Your task to perform on an android device: toggle pop-ups in chrome Image 0: 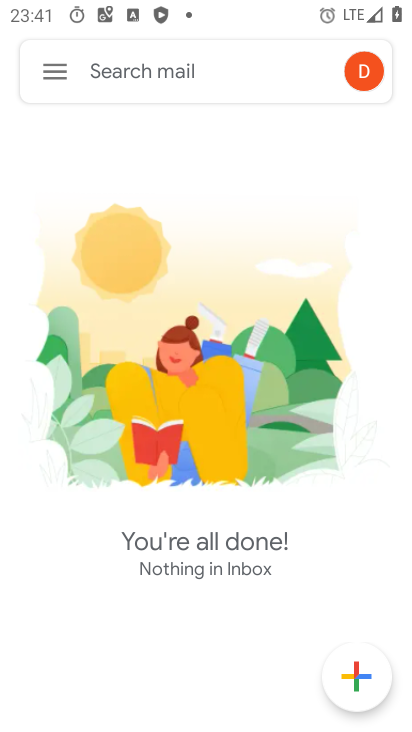
Step 0: press home button
Your task to perform on an android device: toggle pop-ups in chrome Image 1: 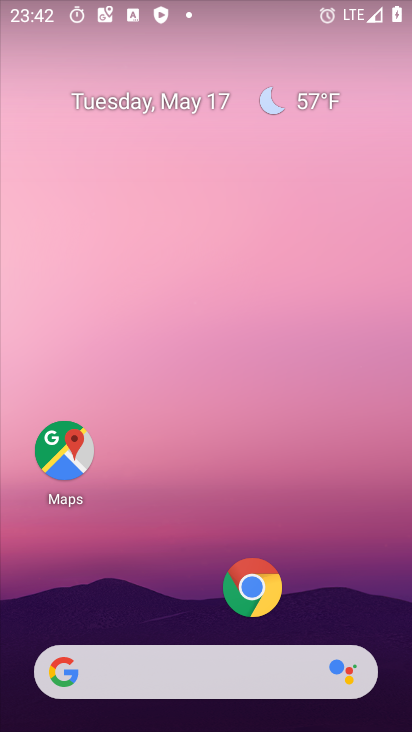
Step 1: click (258, 583)
Your task to perform on an android device: toggle pop-ups in chrome Image 2: 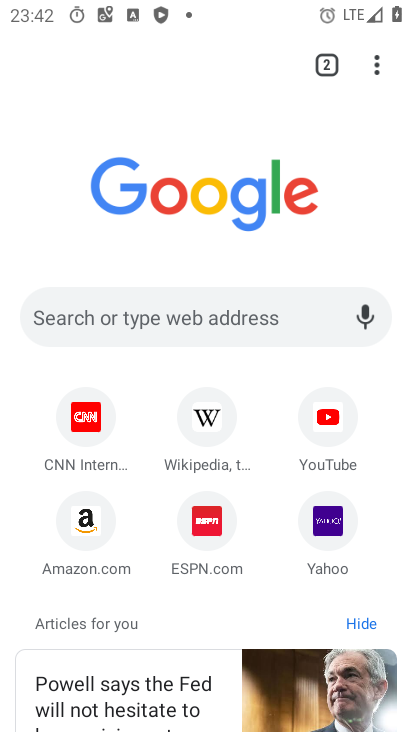
Step 2: click (378, 61)
Your task to perform on an android device: toggle pop-ups in chrome Image 3: 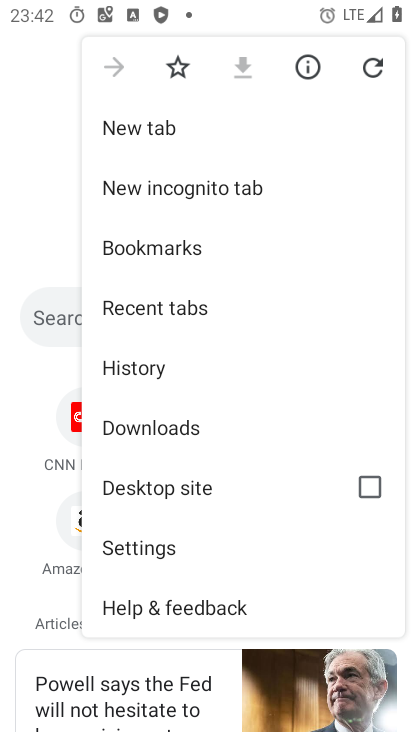
Step 3: click (143, 539)
Your task to perform on an android device: toggle pop-ups in chrome Image 4: 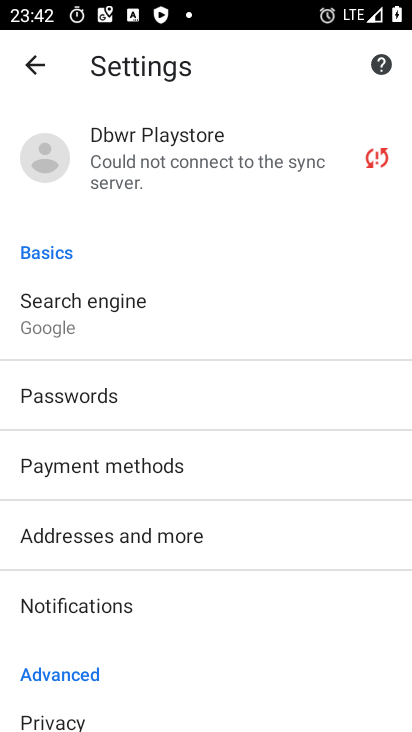
Step 4: drag from (9, 587) to (235, 104)
Your task to perform on an android device: toggle pop-ups in chrome Image 5: 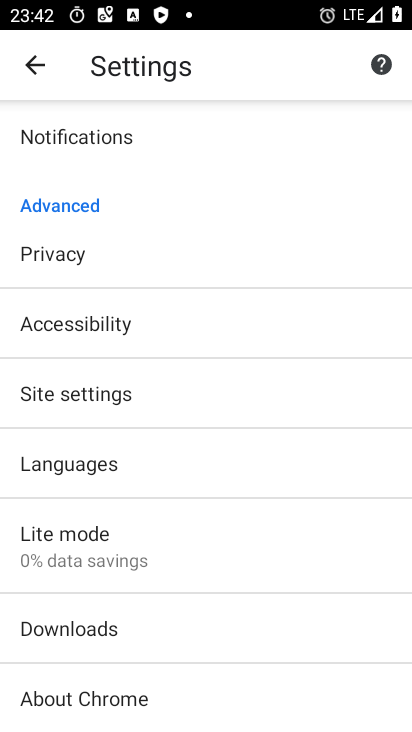
Step 5: click (85, 395)
Your task to perform on an android device: toggle pop-ups in chrome Image 6: 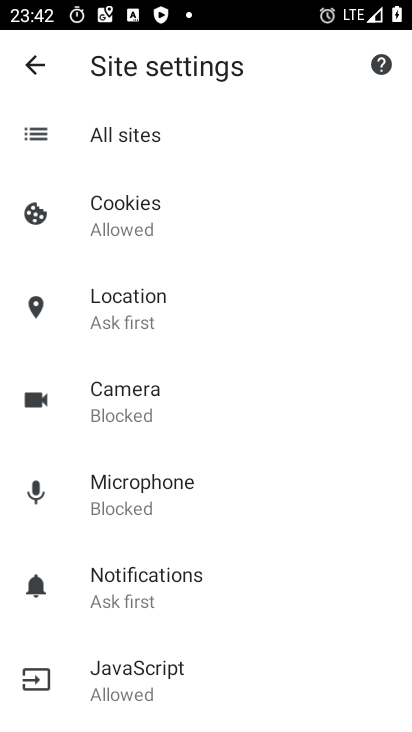
Step 6: drag from (6, 618) to (241, 147)
Your task to perform on an android device: toggle pop-ups in chrome Image 7: 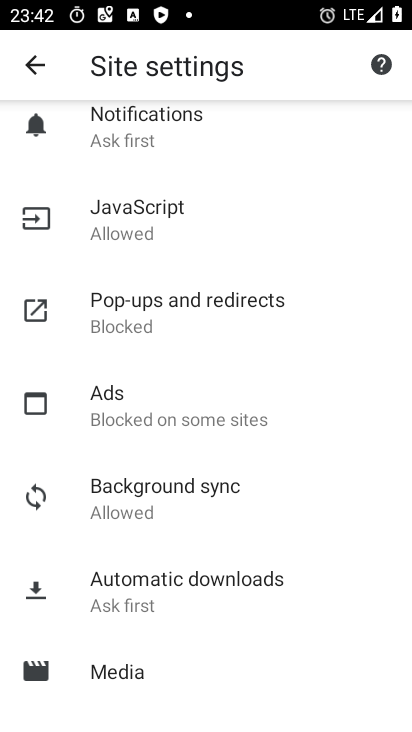
Step 7: click (172, 298)
Your task to perform on an android device: toggle pop-ups in chrome Image 8: 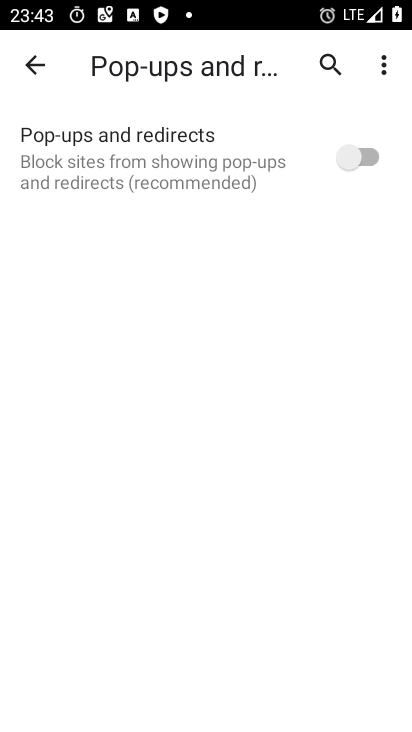
Step 8: click (341, 159)
Your task to perform on an android device: toggle pop-ups in chrome Image 9: 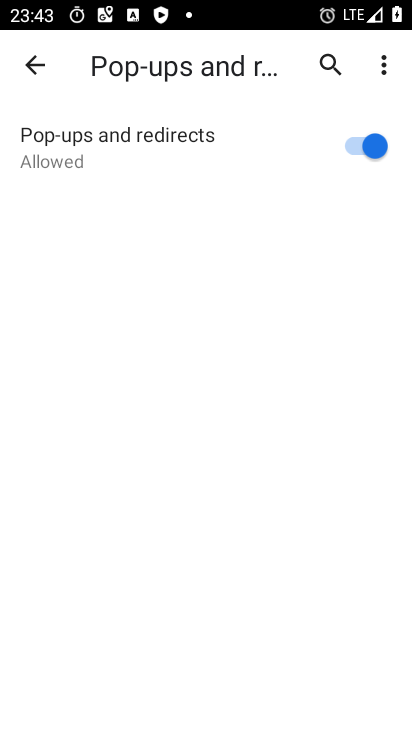
Step 9: task complete